Your task to perform on an android device: Open Android settings Image 0: 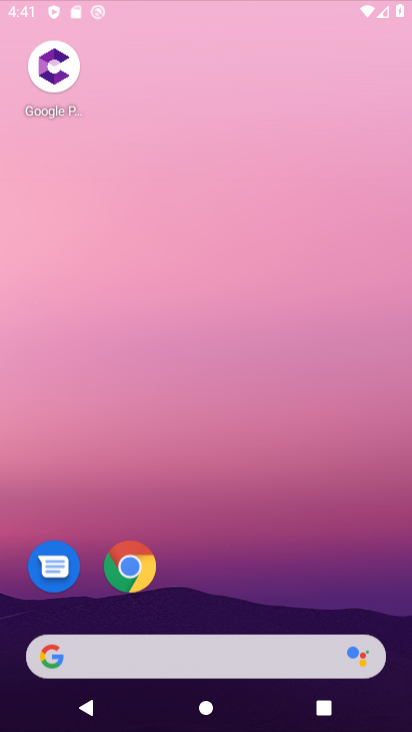
Step 0: drag from (189, 291) to (166, 159)
Your task to perform on an android device: Open Android settings Image 1: 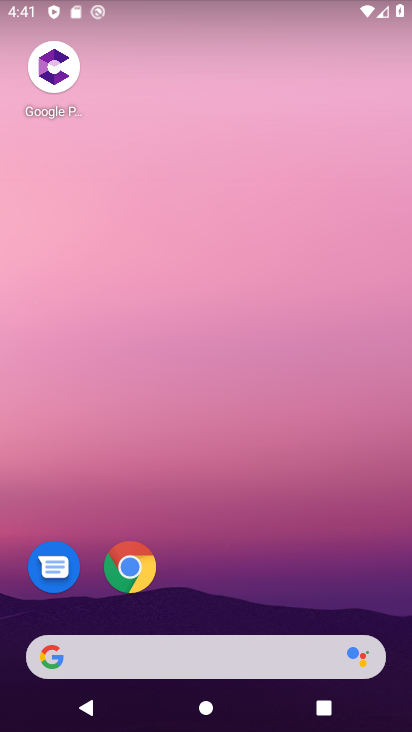
Step 1: drag from (289, 625) to (217, 159)
Your task to perform on an android device: Open Android settings Image 2: 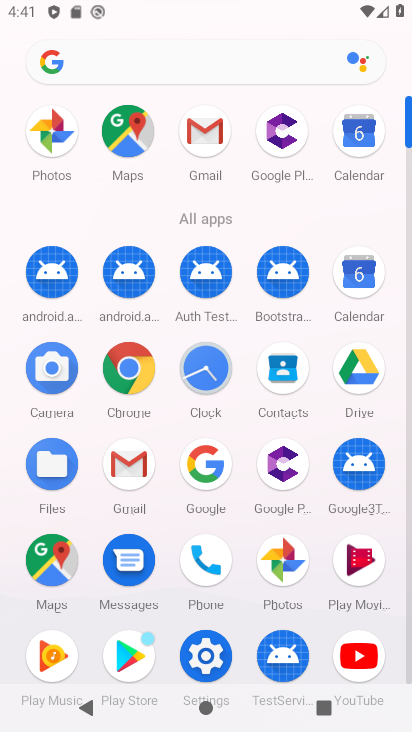
Step 2: click (208, 645)
Your task to perform on an android device: Open Android settings Image 3: 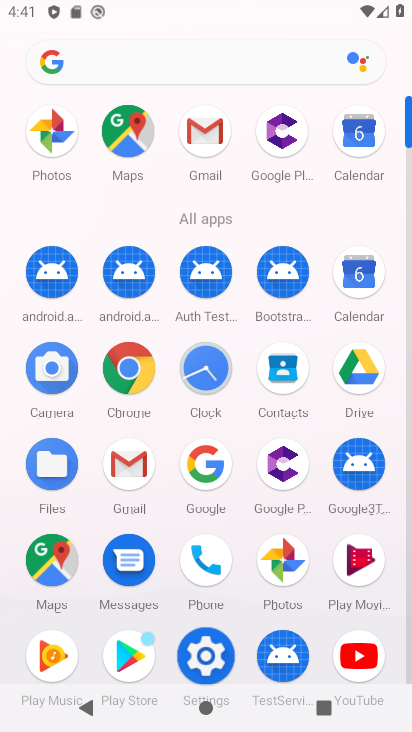
Step 3: click (208, 645)
Your task to perform on an android device: Open Android settings Image 4: 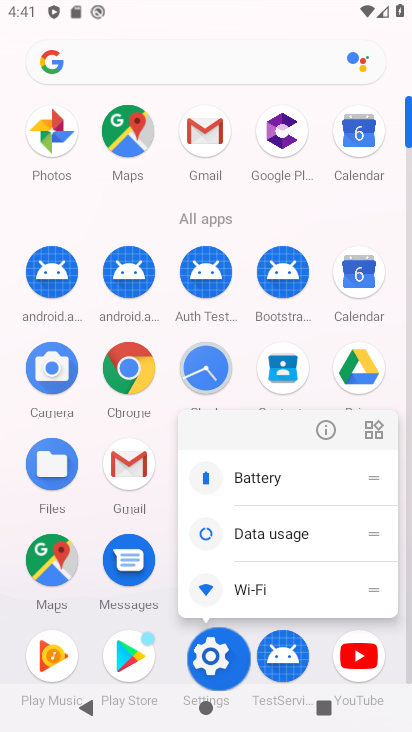
Step 4: click (232, 644)
Your task to perform on an android device: Open Android settings Image 5: 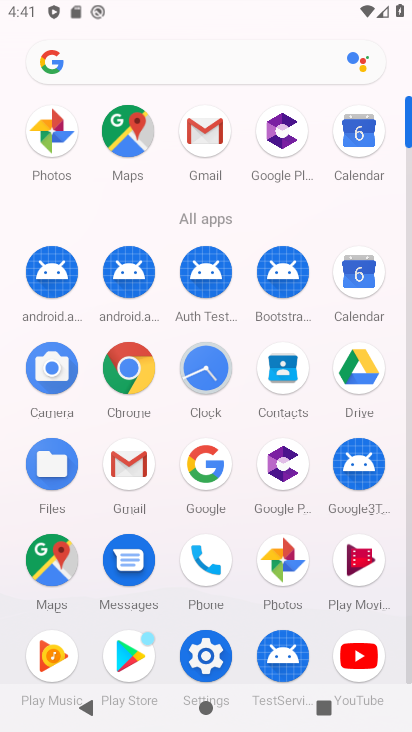
Step 5: click (205, 645)
Your task to perform on an android device: Open Android settings Image 6: 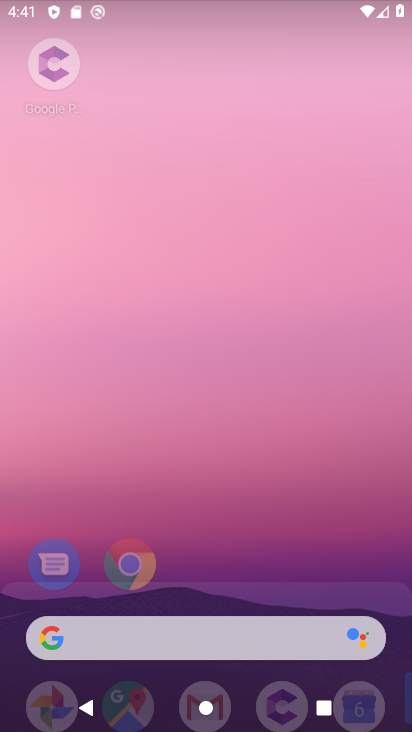
Step 6: click (205, 645)
Your task to perform on an android device: Open Android settings Image 7: 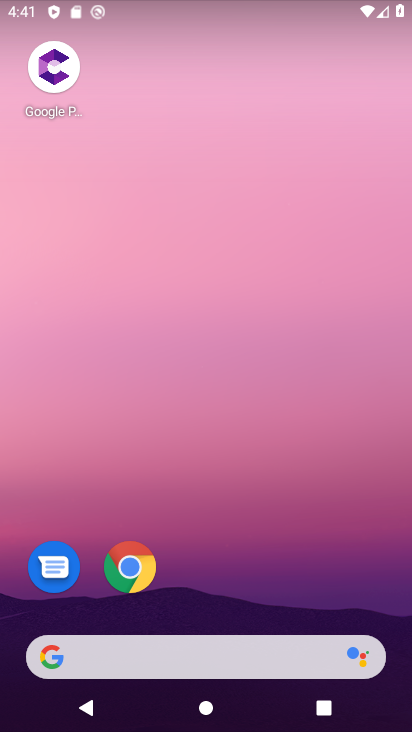
Step 7: click (205, 647)
Your task to perform on an android device: Open Android settings Image 8: 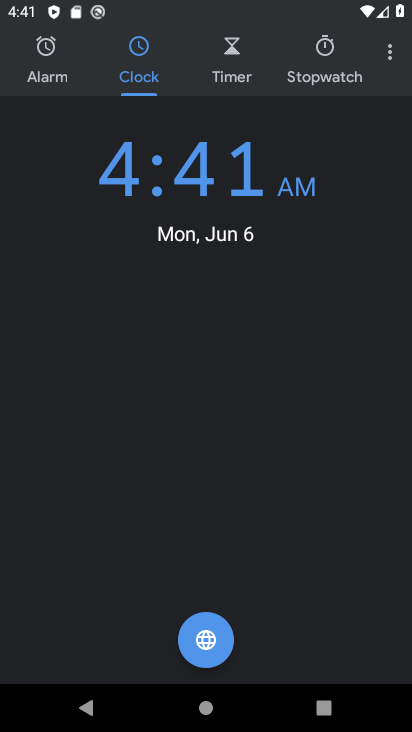
Step 8: press back button
Your task to perform on an android device: Open Android settings Image 9: 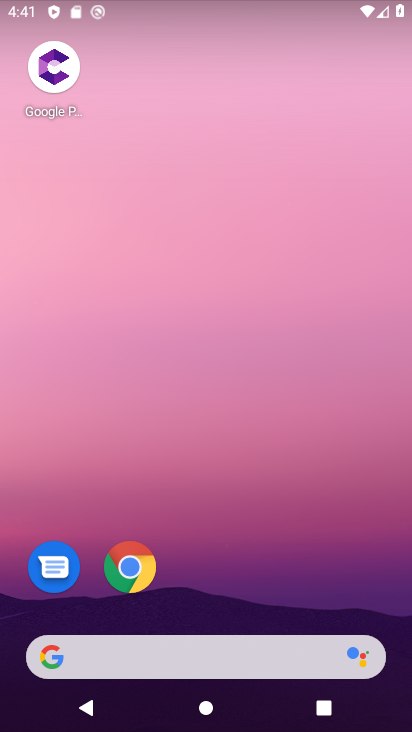
Step 9: drag from (256, 618) to (173, 152)
Your task to perform on an android device: Open Android settings Image 10: 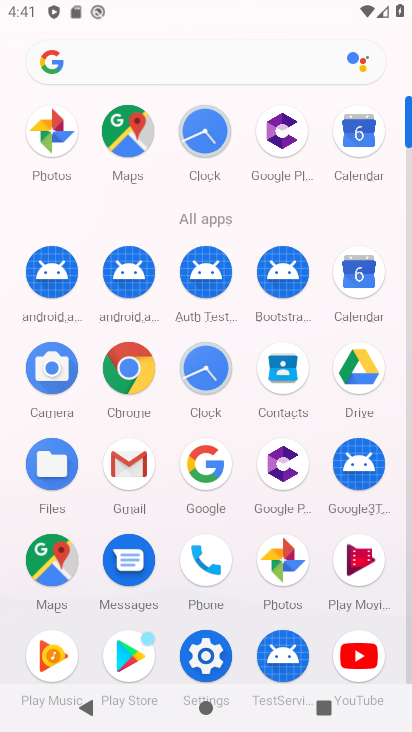
Step 10: click (206, 664)
Your task to perform on an android device: Open Android settings Image 11: 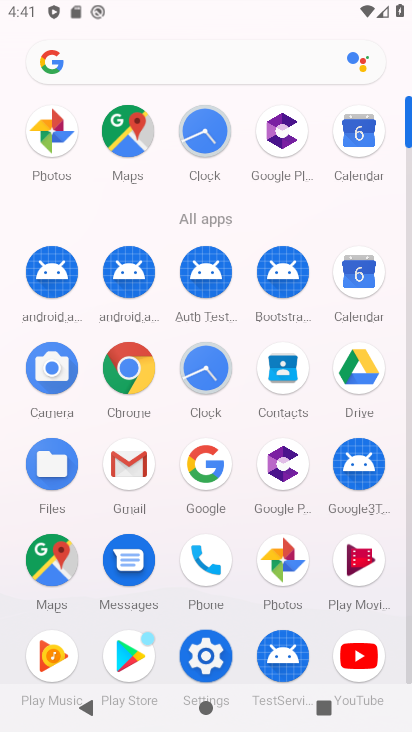
Step 11: click (206, 664)
Your task to perform on an android device: Open Android settings Image 12: 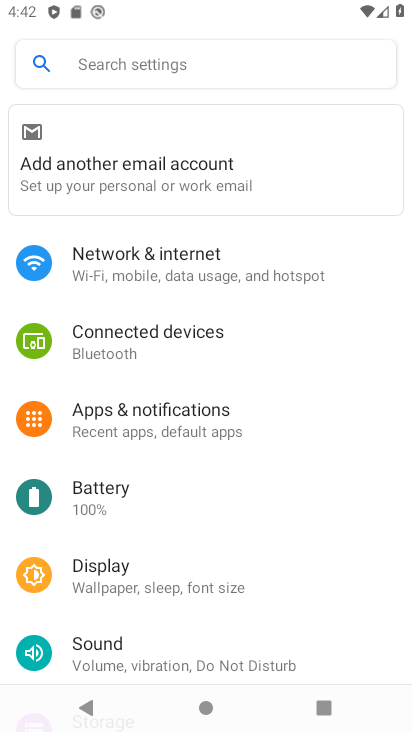
Step 12: drag from (160, 481) to (121, 108)
Your task to perform on an android device: Open Android settings Image 13: 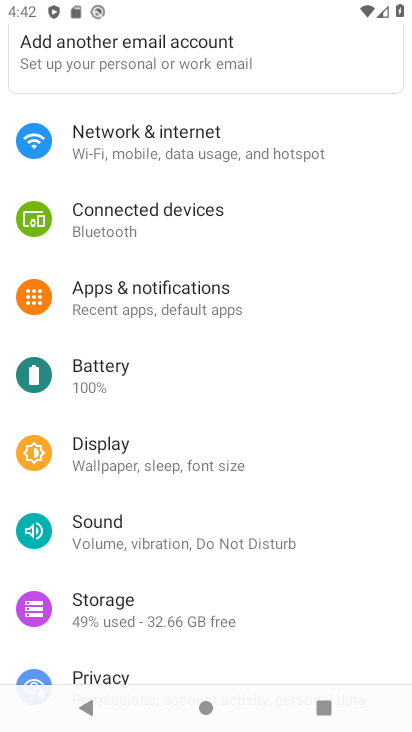
Step 13: drag from (163, 377) to (149, 106)
Your task to perform on an android device: Open Android settings Image 14: 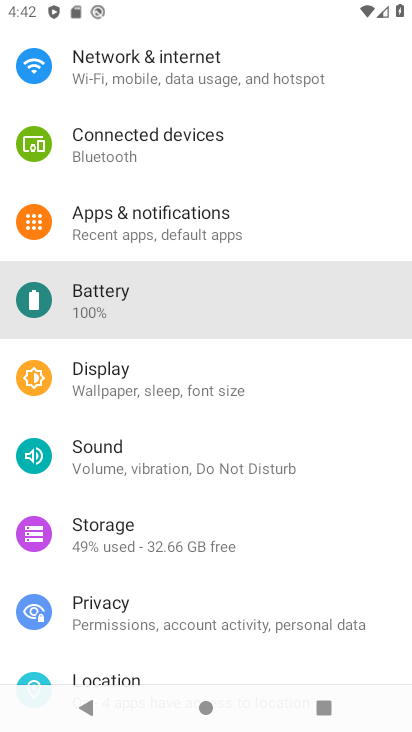
Step 14: drag from (211, 442) to (180, 117)
Your task to perform on an android device: Open Android settings Image 15: 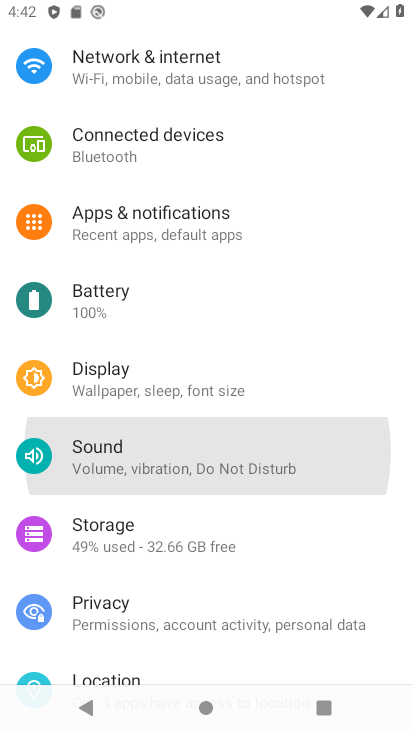
Step 15: drag from (219, 451) to (175, 135)
Your task to perform on an android device: Open Android settings Image 16: 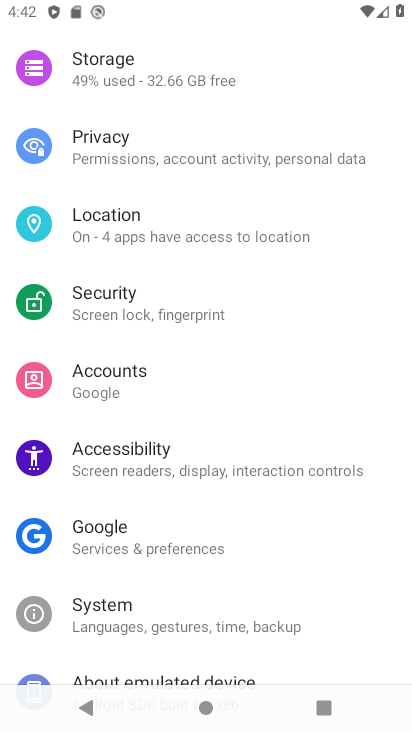
Step 16: drag from (220, 439) to (151, 60)
Your task to perform on an android device: Open Android settings Image 17: 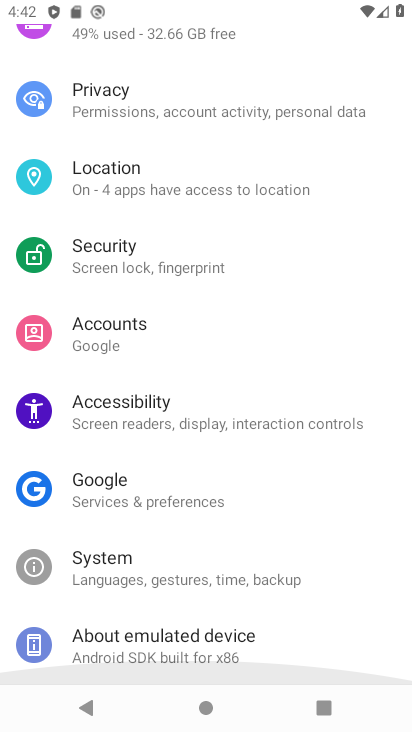
Step 17: drag from (197, 479) to (199, 168)
Your task to perform on an android device: Open Android settings Image 18: 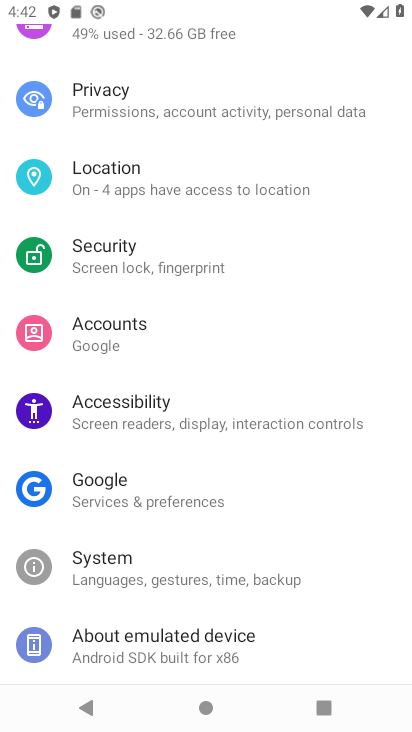
Step 18: click (202, 630)
Your task to perform on an android device: Open Android settings Image 19: 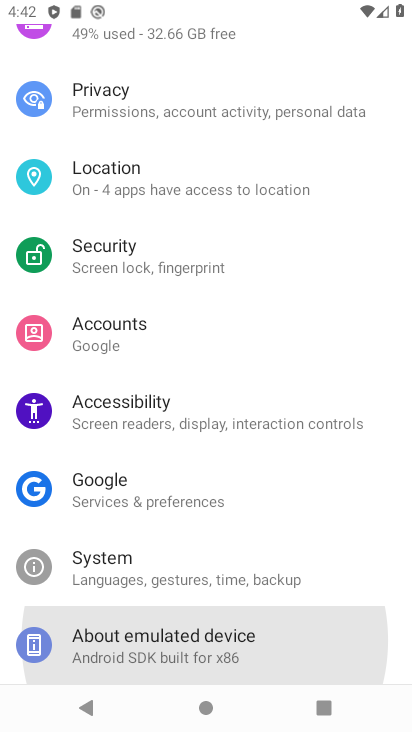
Step 19: click (180, 635)
Your task to perform on an android device: Open Android settings Image 20: 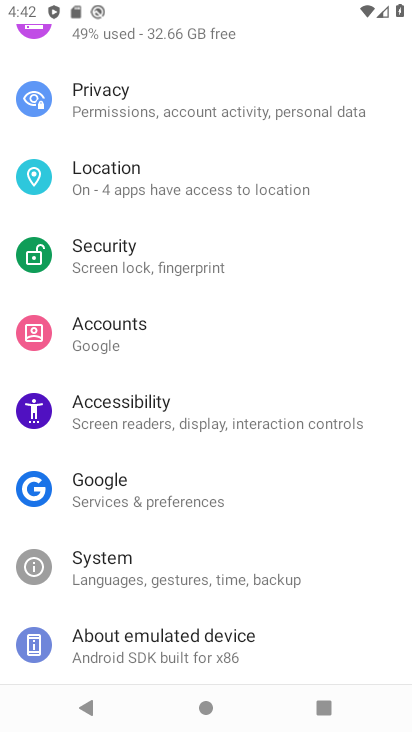
Step 20: click (176, 637)
Your task to perform on an android device: Open Android settings Image 21: 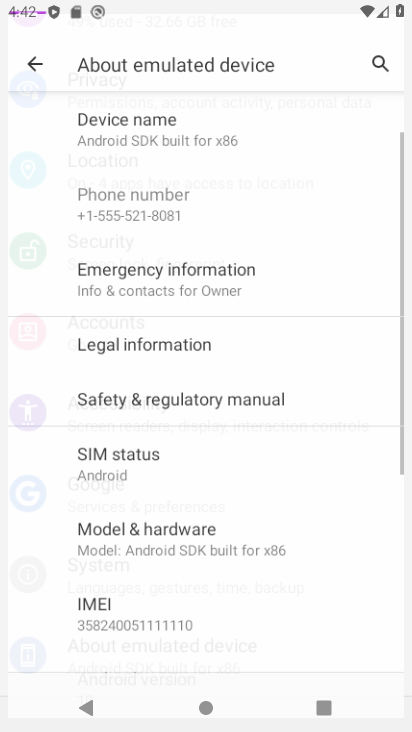
Step 21: click (176, 637)
Your task to perform on an android device: Open Android settings Image 22: 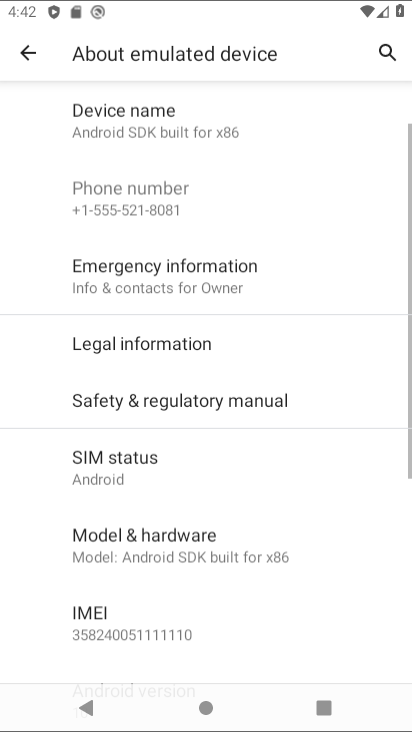
Step 22: click (176, 637)
Your task to perform on an android device: Open Android settings Image 23: 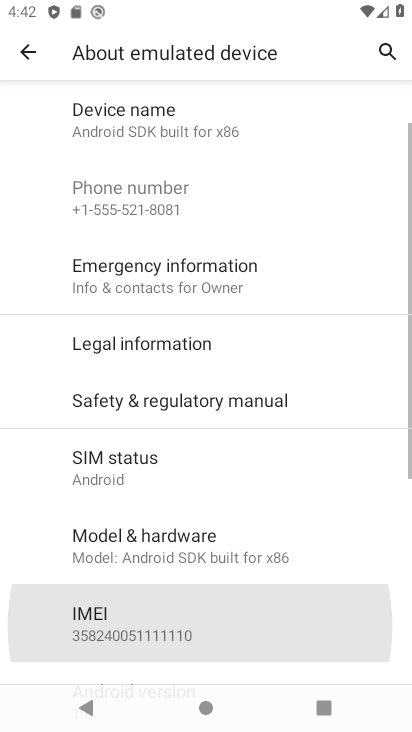
Step 23: click (177, 637)
Your task to perform on an android device: Open Android settings Image 24: 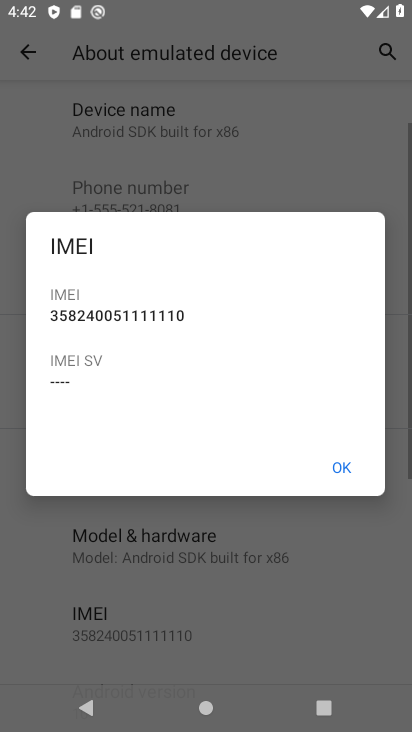
Step 24: click (340, 468)
Your task to perform on an android device: Open Android settings Image 25: 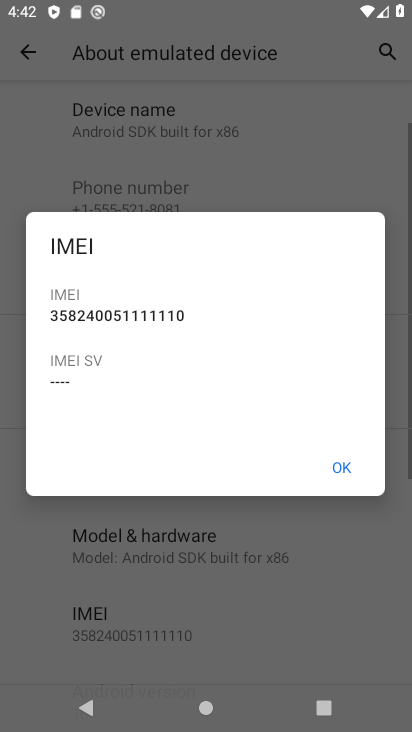
Step 25: click (339, 467)
Your task to perform on an android device: Open Android settings Image 26: 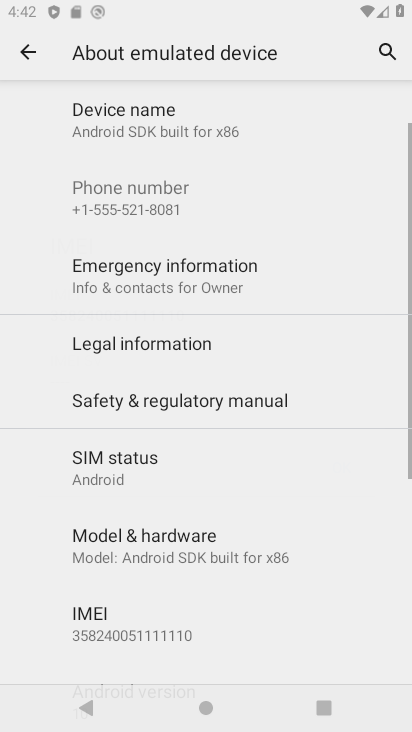
Step 26: click (339, 467)
Your task to perform on an android device: Open Android settings Image 27: 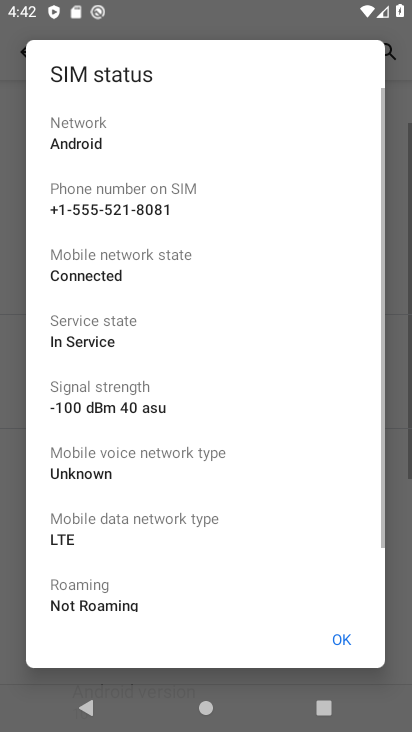
Step 27: task complete